Your task to perform on an android device: toggle airplane mode Image 0: 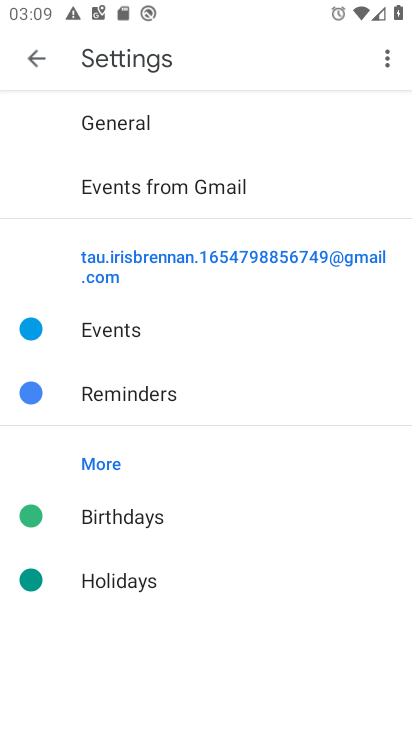
Step 0: press home button
Your task to perform on an android device: toggle airplane mode Image 1: 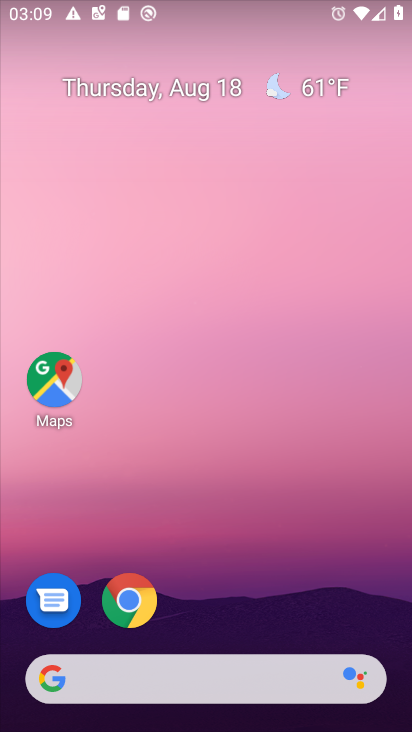
Step 1: drag from (236, 0) to (201, 447)
Your task to perform on an android device: toggle airplane mode Image 2: 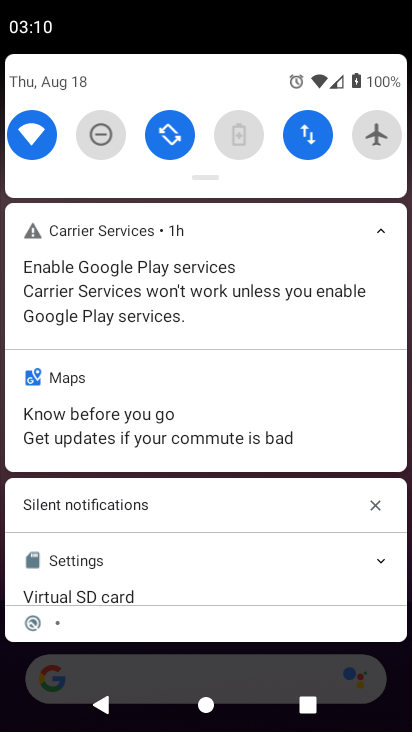
Step 2: click (377, 141)
Your task to perform on an android device: toggle airplane mode Image 3: 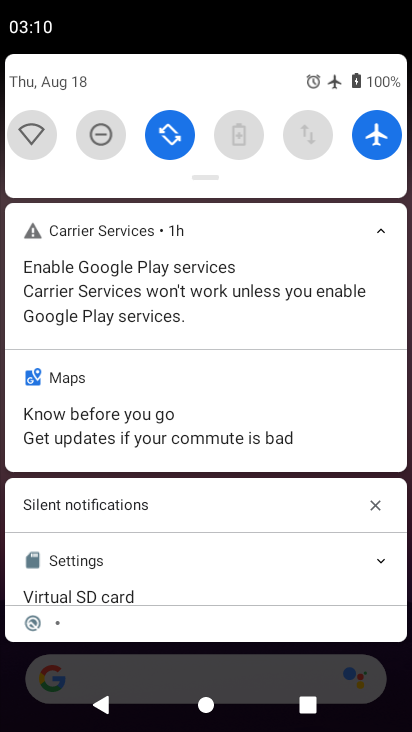
Step 3: task complete